Your task to perform on an android device: delete location history Image 0: 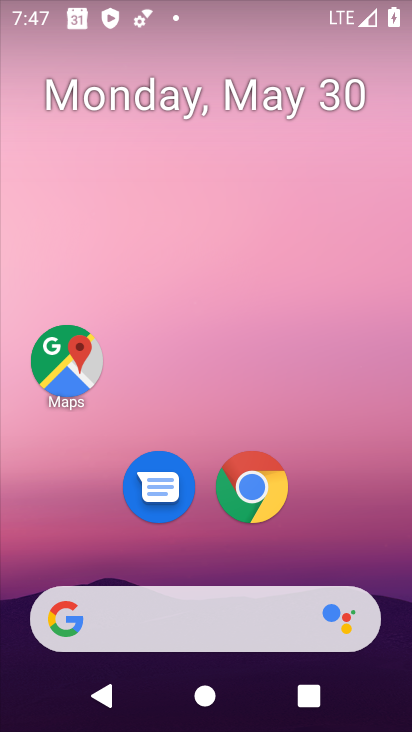
Step 0: drag from (389, 693) to (343, 228)
Your task to perform on an android device: delete location history Image 1: 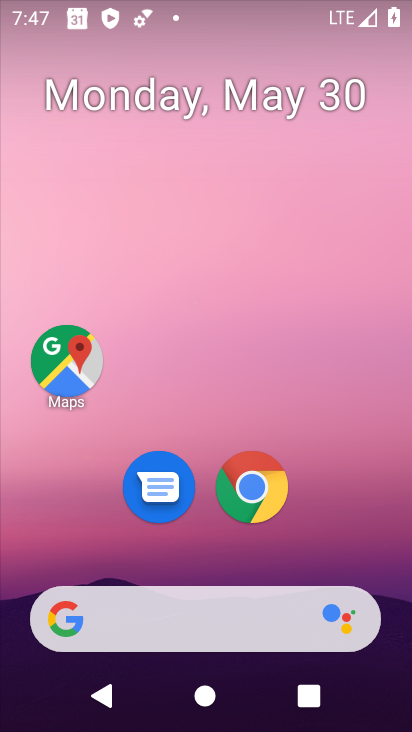
Step 1: click (80, 361)
Your task to perform on an android device: delete location history Image 2: 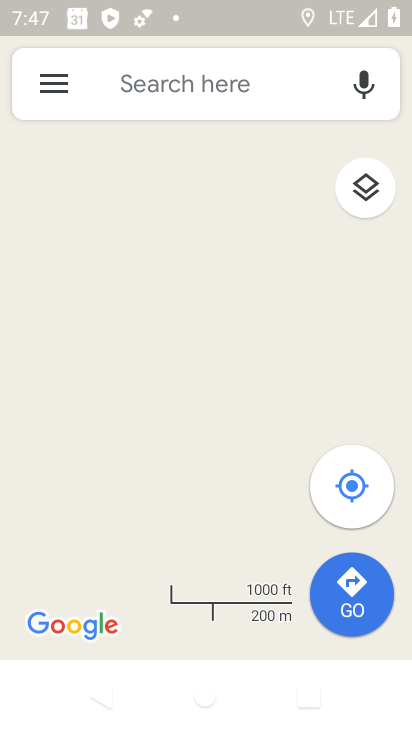
Step 2: click (54, 70)
Your task to perform on an android device: delete location history Image 3: 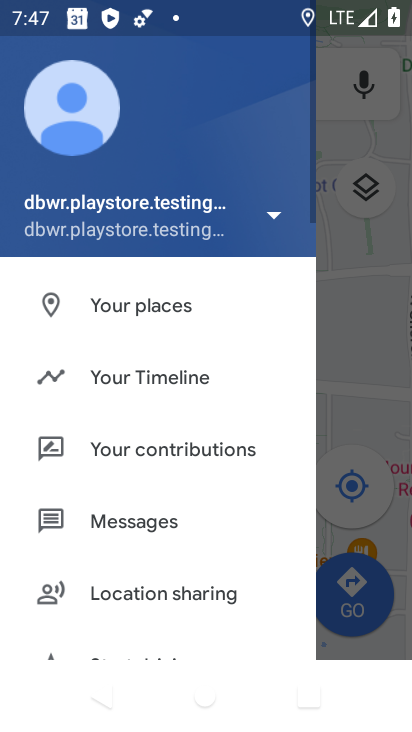
Step 3: click (135, 377)
Your task to perform on an android device: delete location history Image 4: 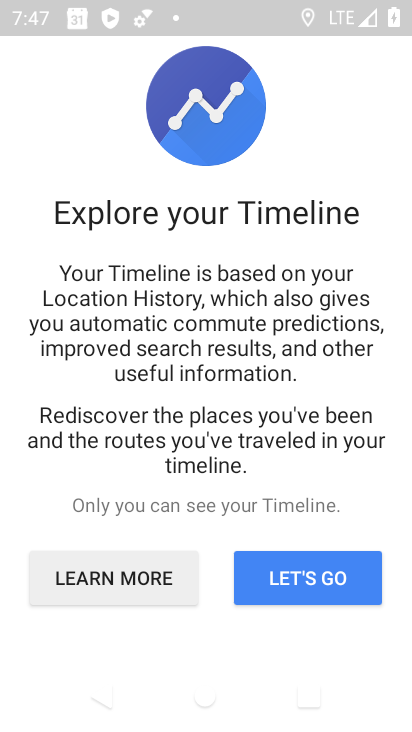
Step 4: click (270, 585)
Your task to perform on an android device: delete location history Image 5: 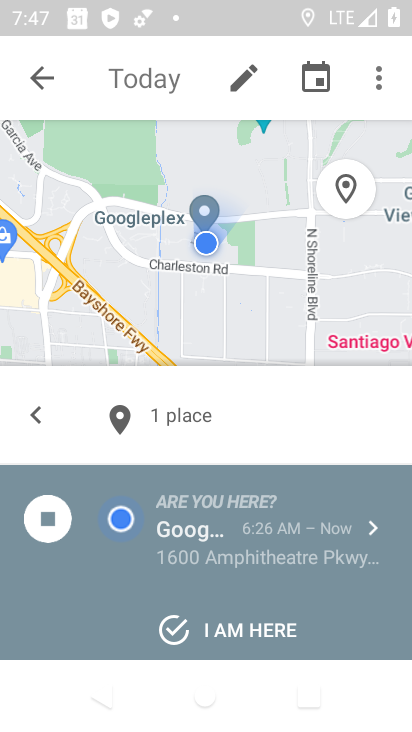
Step 5: click (378, 77)
Your task to perform on an android device: delete location history Image 6: 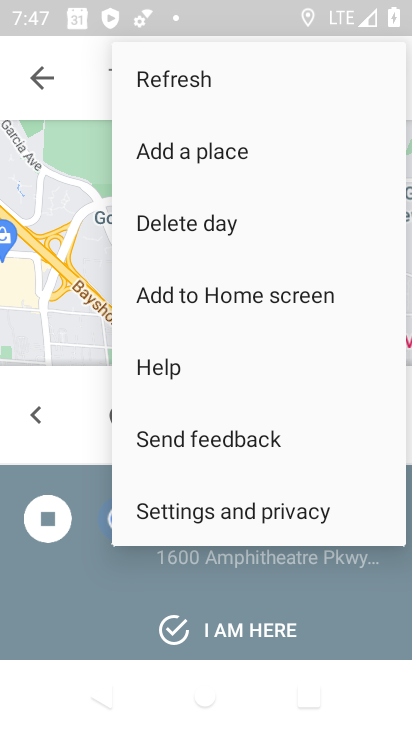
Step 6: click (183, 514)
Your task to perform on an android device: delete location history Image 7: 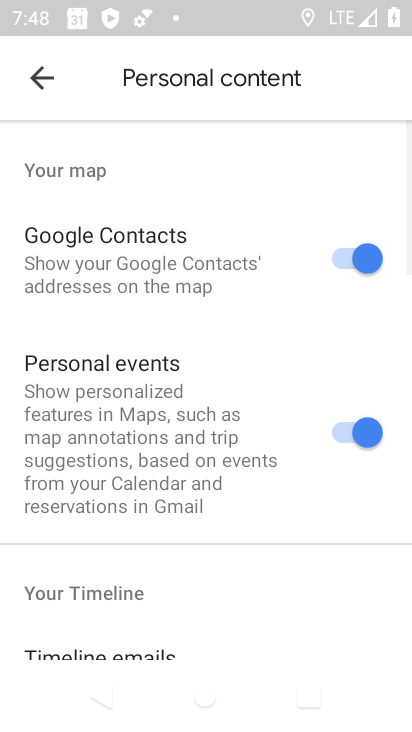
Step 7: drag from (203, 626) to (216, 227)
Your task to perform on an android device: delete location history Image 8: 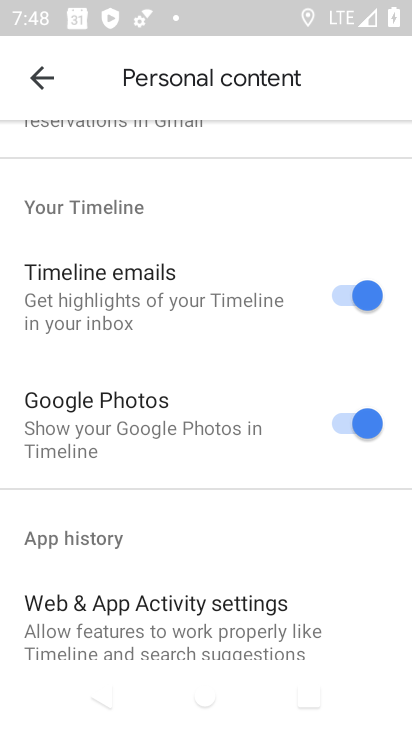
Step 8: drag from (185, 617) to (224, 211)
Your task to perform on an android device: delete location history Image 9: 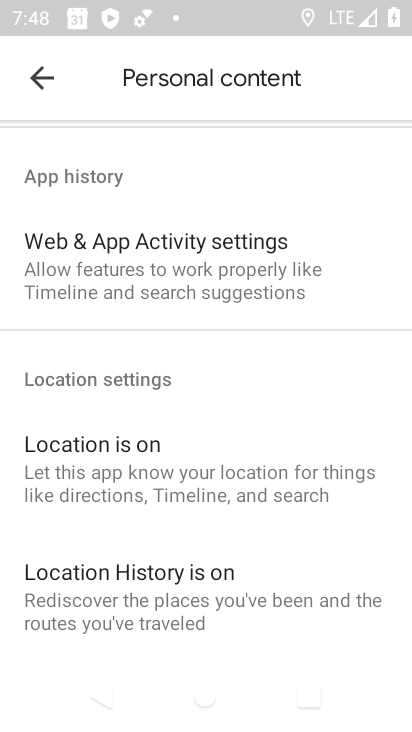
Step 9: drag from (180, 624) to (173, 313)
Your task to perform on an android device: delete location history Image 10: 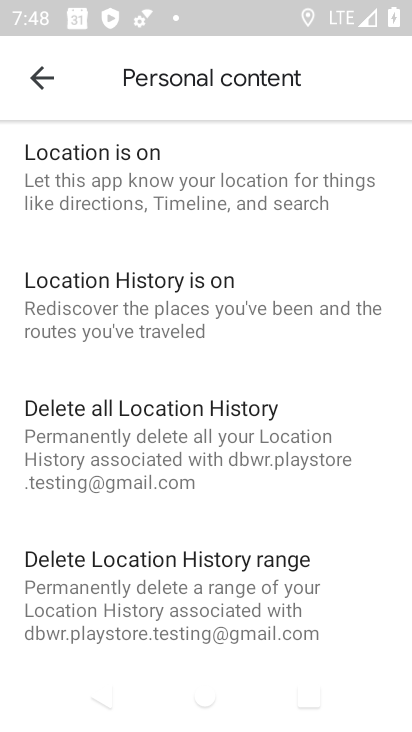
Step 10: click (153, 415)
Your task to perform on an android device: delete location history Image 11: 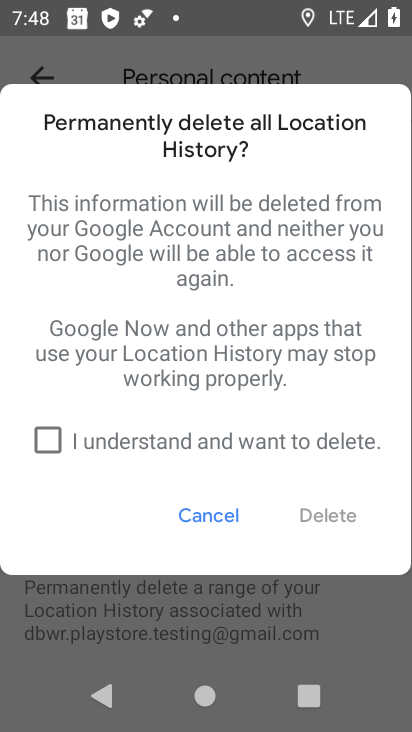
Step 11: click (41, 446)
Your task to perform on an android device: delete location history Image 12: 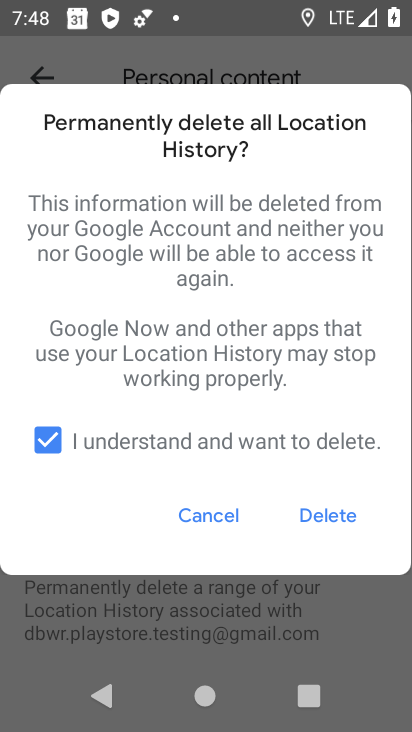
Step 12: click (318, 516)
Your task to perform on an android device: delete location history Image 13: 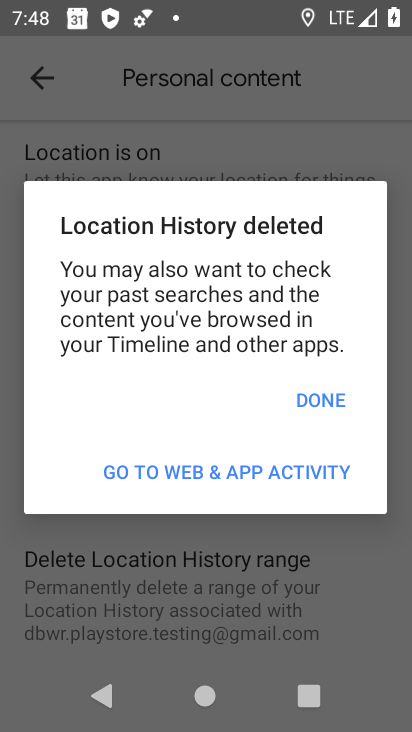
Step 13: task complete